Your task to perform on an android device: change notifications settings Image 0: 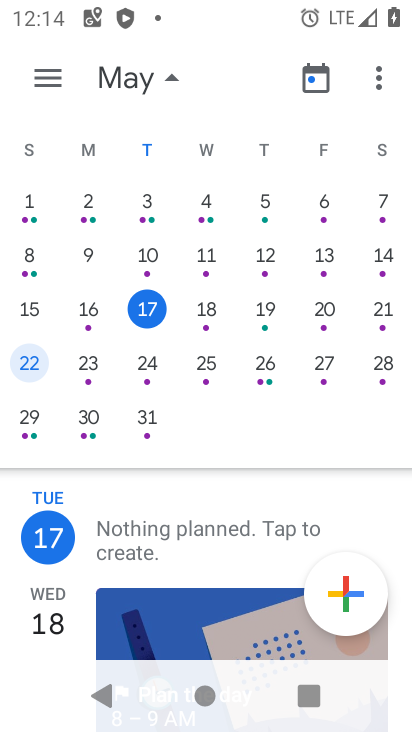
Step 0: press home button
Your task to perform on an android device: change notifications settings Image 1: 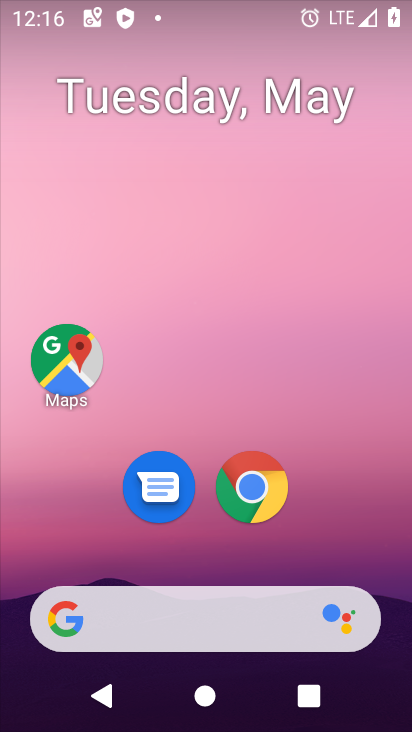
Step 1: drag from (50, 396) to (172, 112)
Your task to perform on an android device: change notifications settings Image 2: 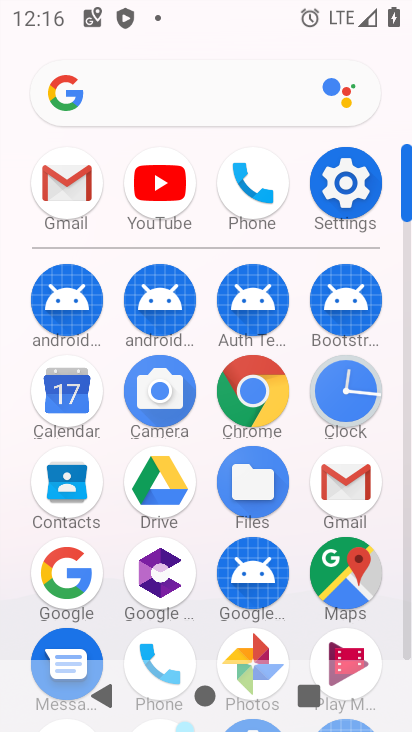
Step 2: click (318, 187)
Your task to perform on an android device: change notifications settings Image 3: 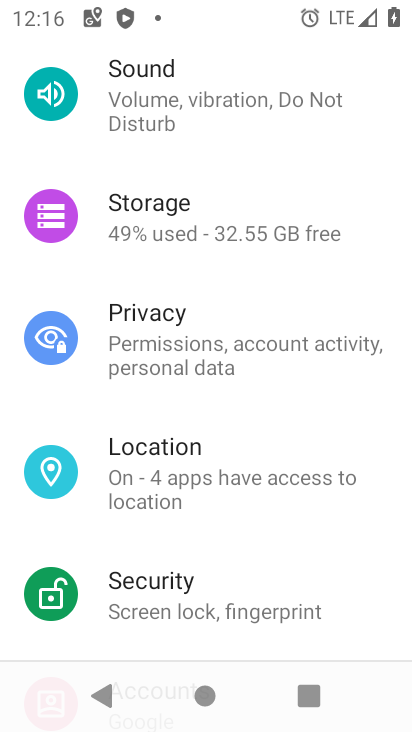
Step 3: drag from (12, 617) to (220, 174)
Your task to perform on an android device: change notifications settings Image 4: 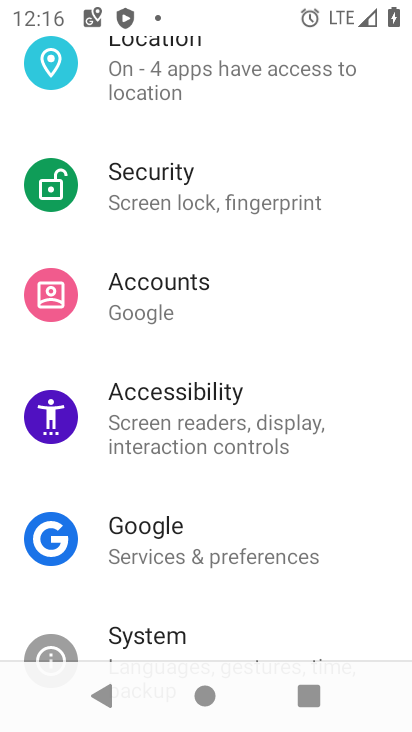
Step 4: drag from (177, 228) to (160, 626)
Your task to perform on an android device: change notifications settings Image 5: 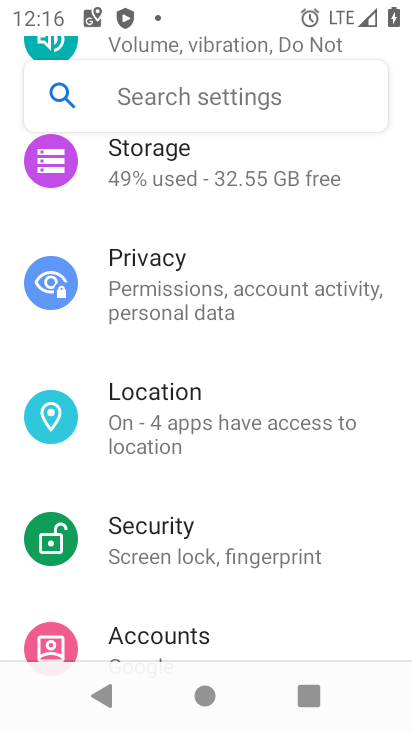
Step 5: drag from (158, 146) to (118, 495)
Your task to perform on an android device: change notifications settings Image 6: 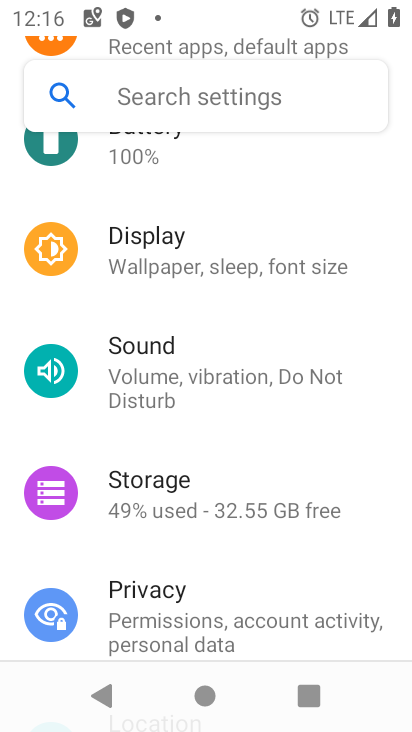
Step 6: drag from (281, 117) to (198, 459)
Your task to perform on an android device: change notifications settings Image 7: 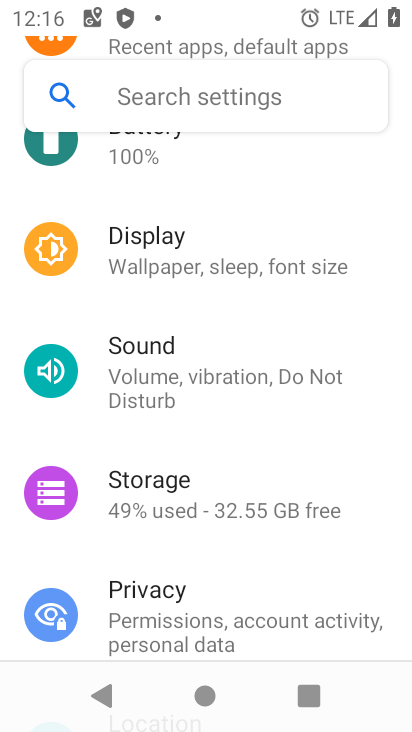
Step 7: drag from (145, 168) to (164, 555)
Your task to perform on an android device: change notifications settings Image 8: 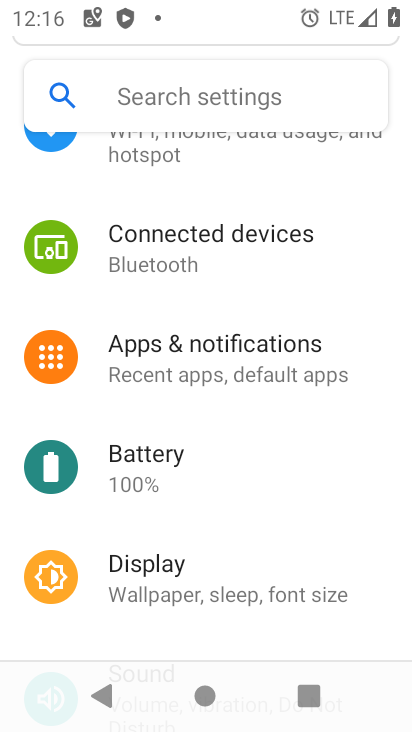
Step 8: click (290, 372)
Your task to perform on an android device: change notifications settings Image 9: 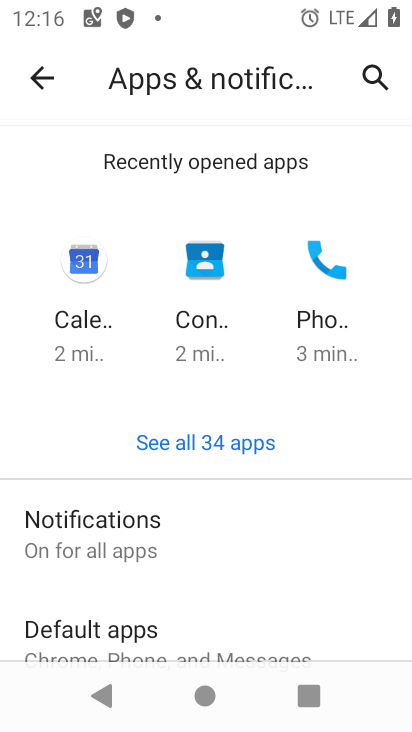
Step 9: click (89, 547)
Your task to perform on an android device: change notifications settings Image 10: 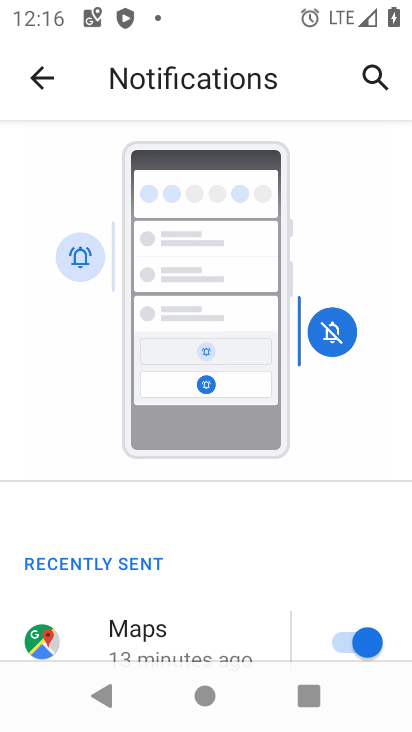
Step 10: drag from (136, 631) to (246, 275)
Your task to perform on an android device: change notifications settings Image 11: 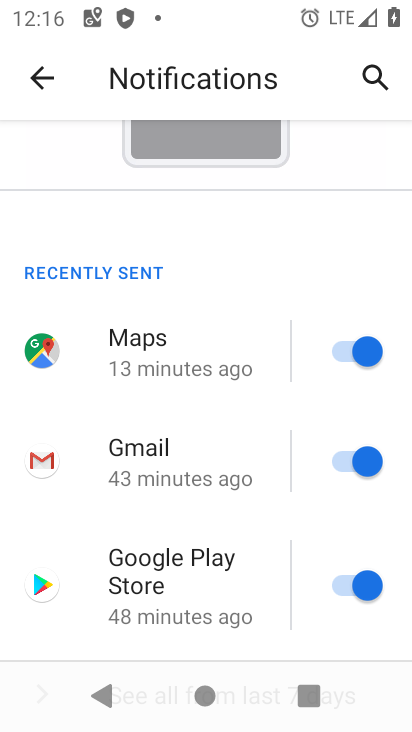
Step 11: drag from (20, 564) to (190, 249)
Your task to perform on an android device: change notifications settings Image 12: 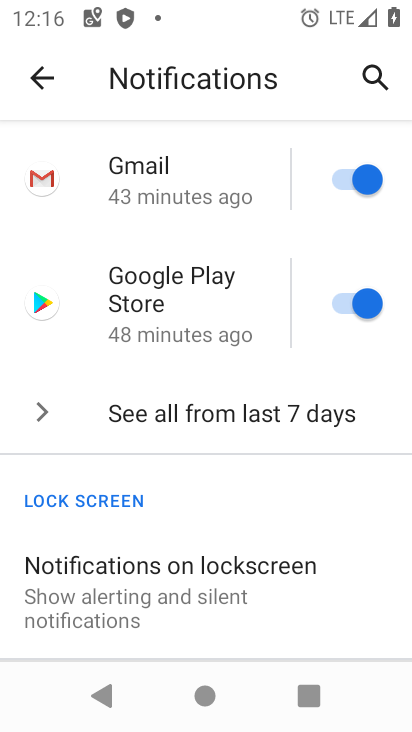
Step 12: click (380, 303)
Your task to perform on an android device: change notifications settings Image 13: 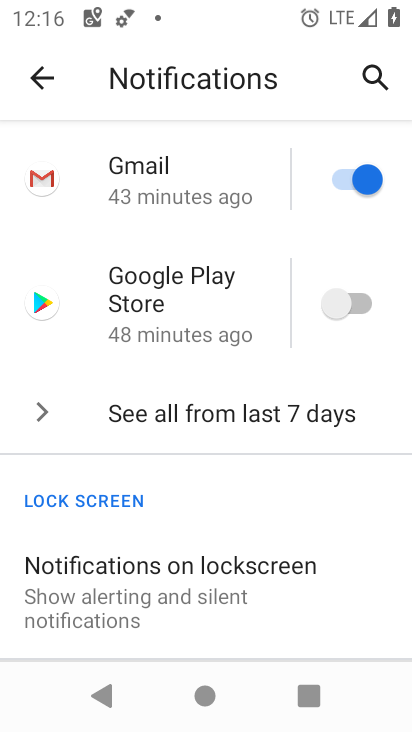
Step 13: task complete